Your task to perform on an android device: install app "Indeed Job Search" Image 0: 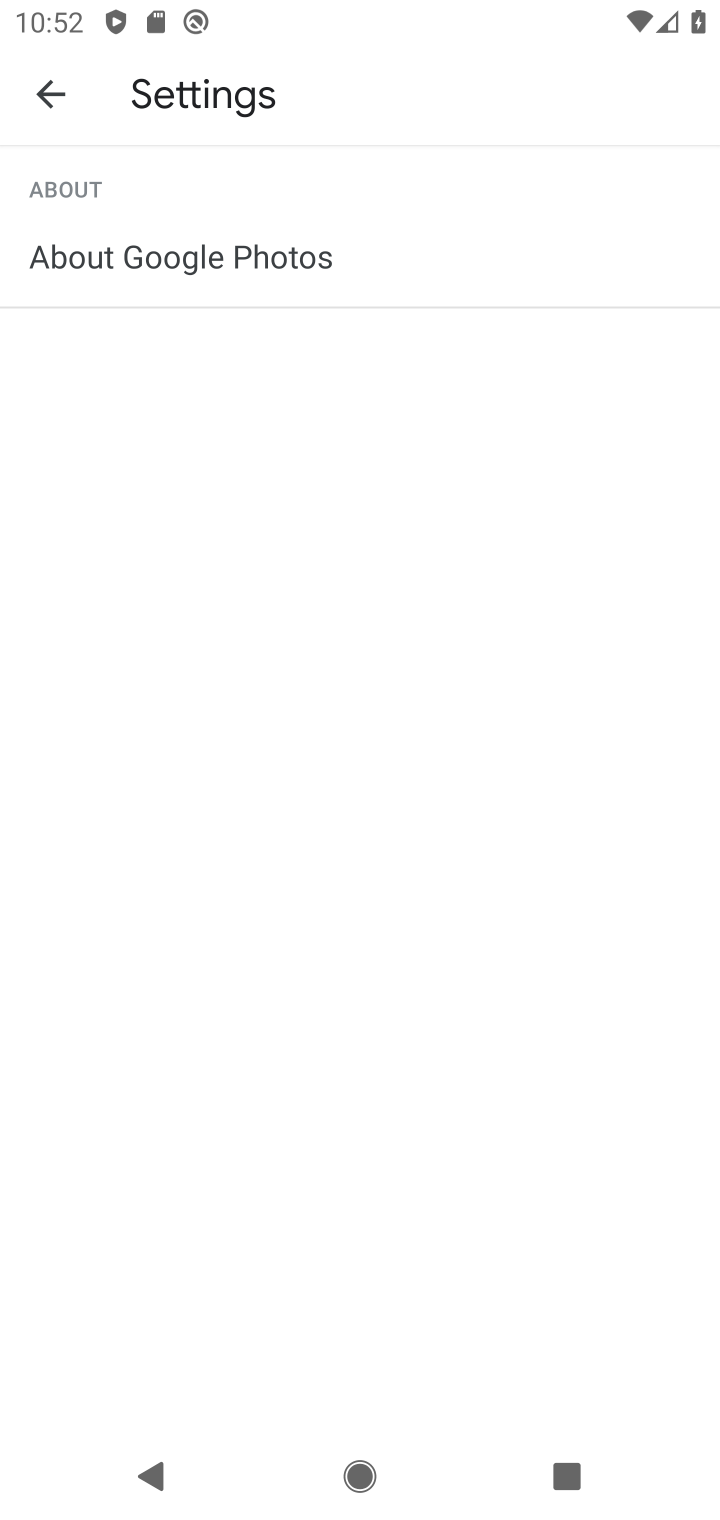
Step 0: press home button
Your task to perform on an android device: install app "Indeed Job Search" Image 1: 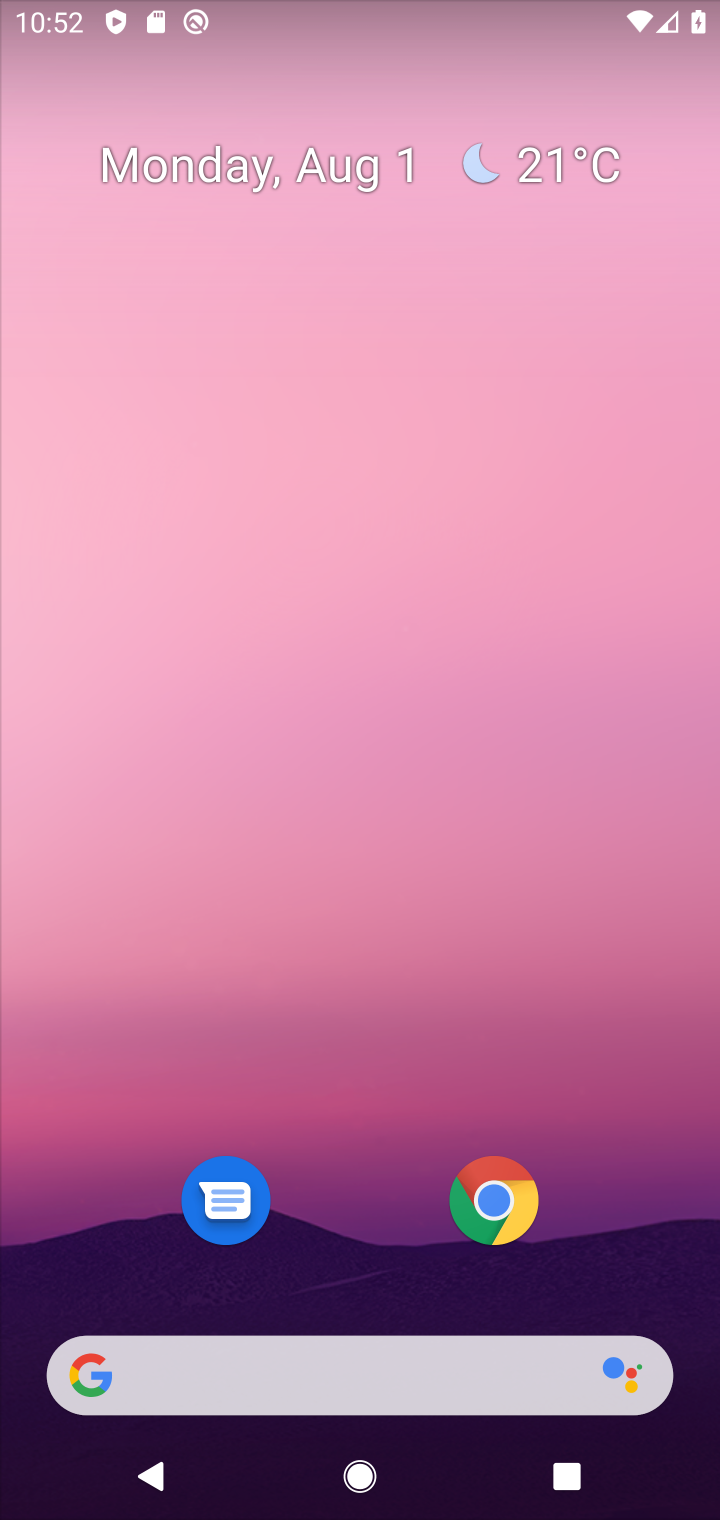
Step 1: drag from (336, 506) to (331, 131)
Your task to perform on an android device: install app "Indeed Job Search" Image 2: 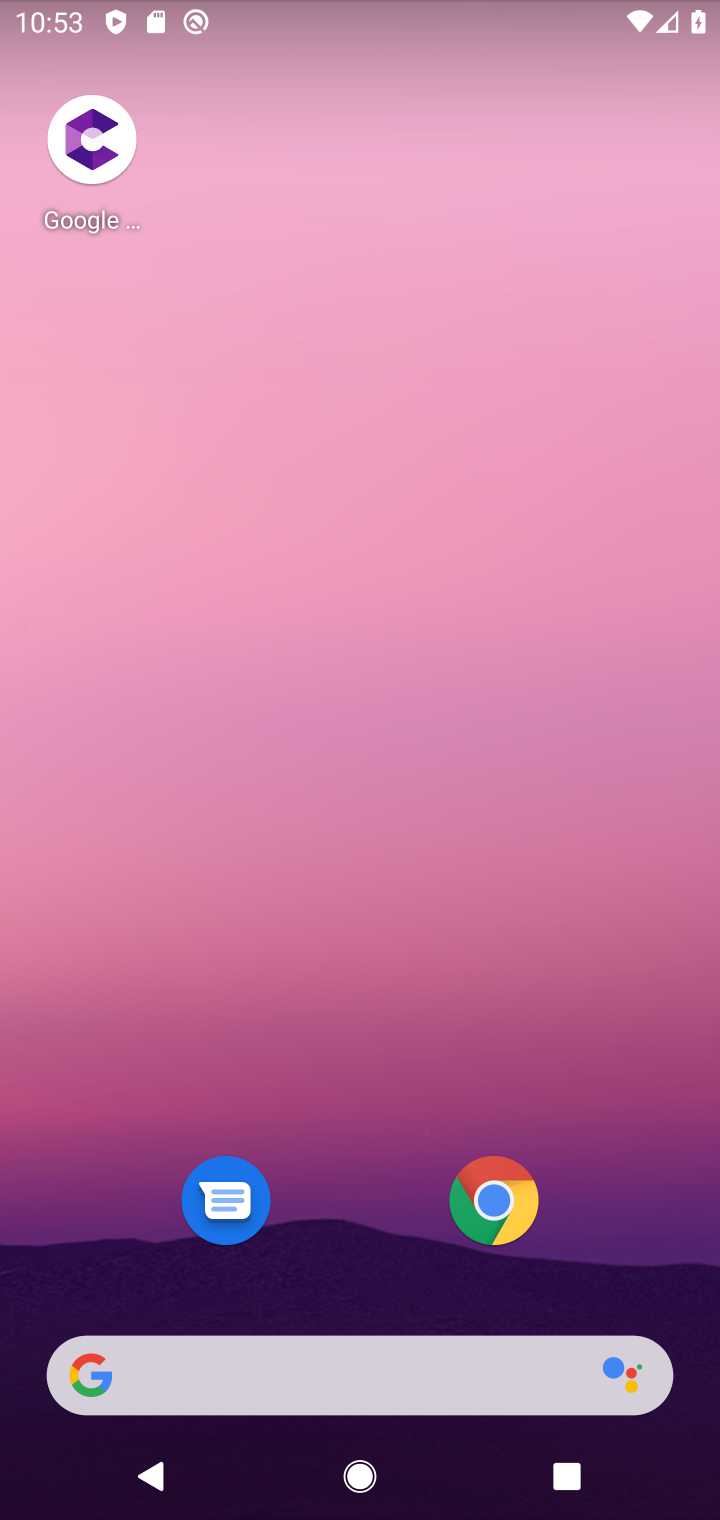
Step 2: drag from (352, 1108) to (342, 148)
Your task to perform on an android device: install app "Indeed Job Search" Image 3: 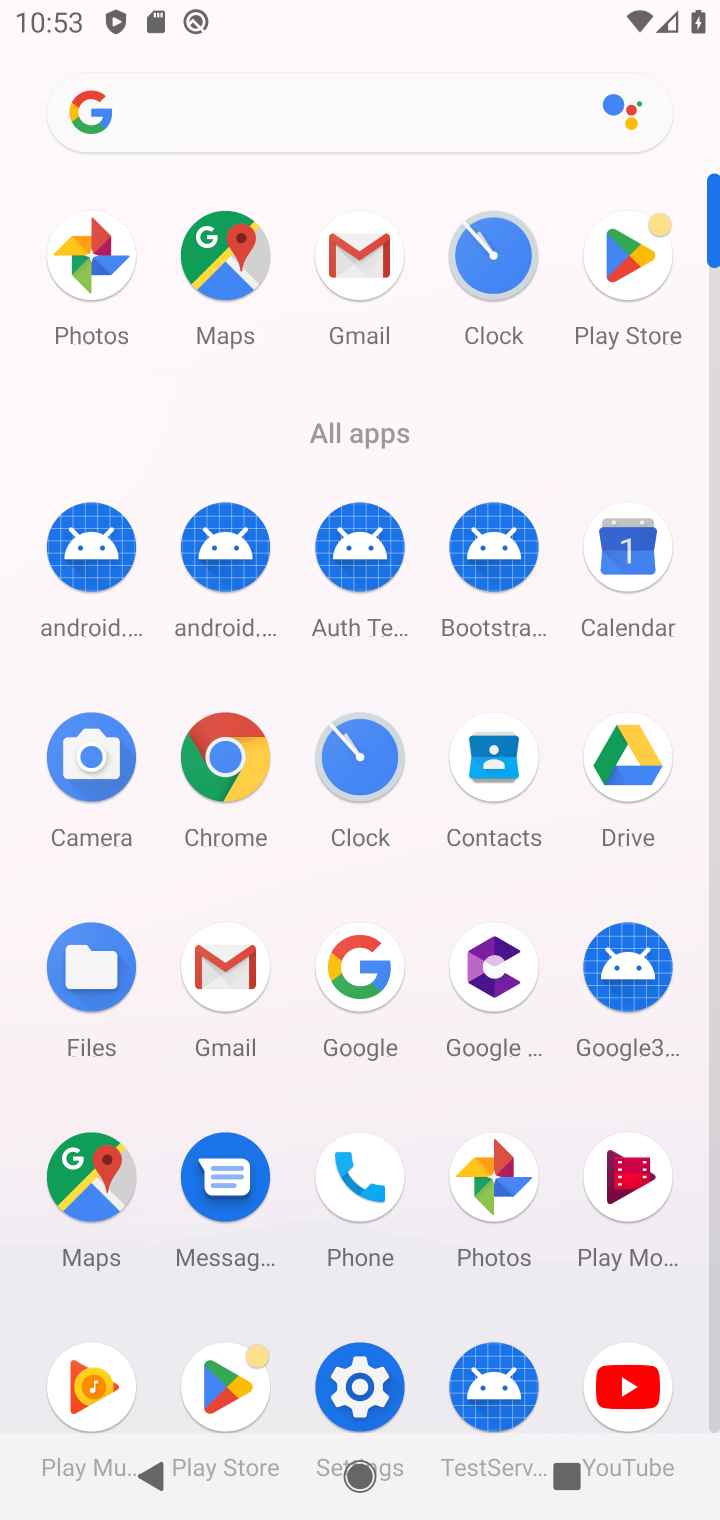
Step 3: click (610, 262)
Your task to perform on an android device: install app "Indeed Job Search" Image 4: 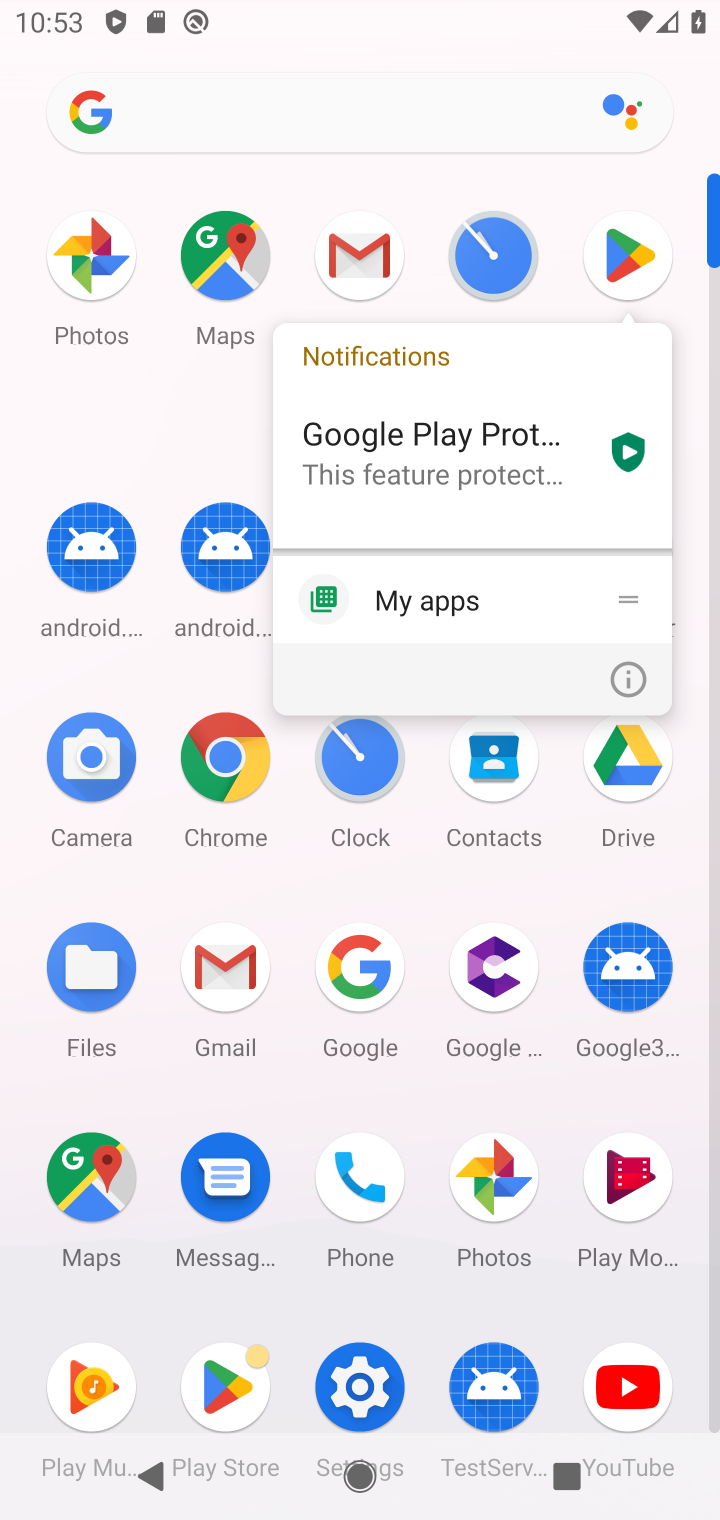
Step 4: click (610, 262)
Your task to perform on an android device: install app "Indeed Job Search" Image 5: 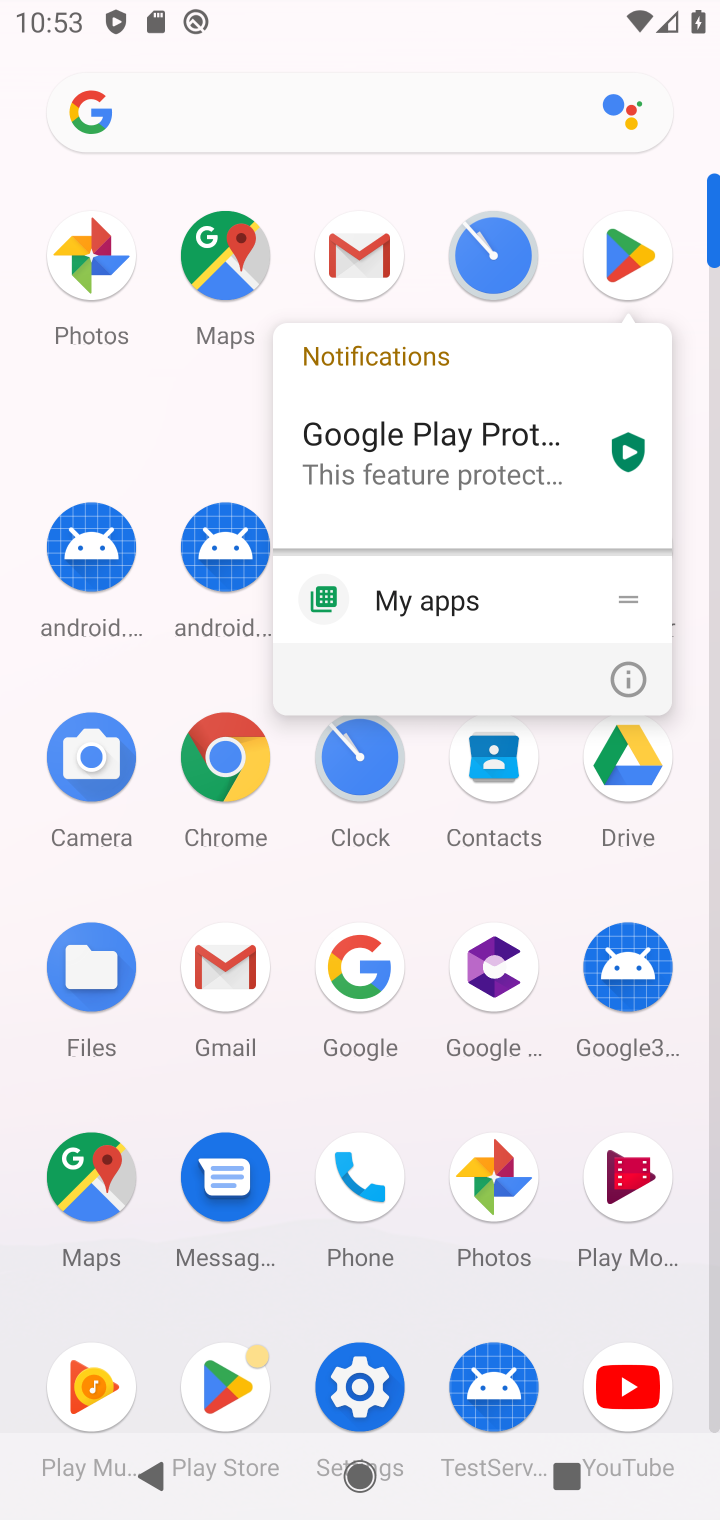
Step 5: click (636, 263)
Your task to perform on an android device: install app "Indeed Job Search" Image 6: 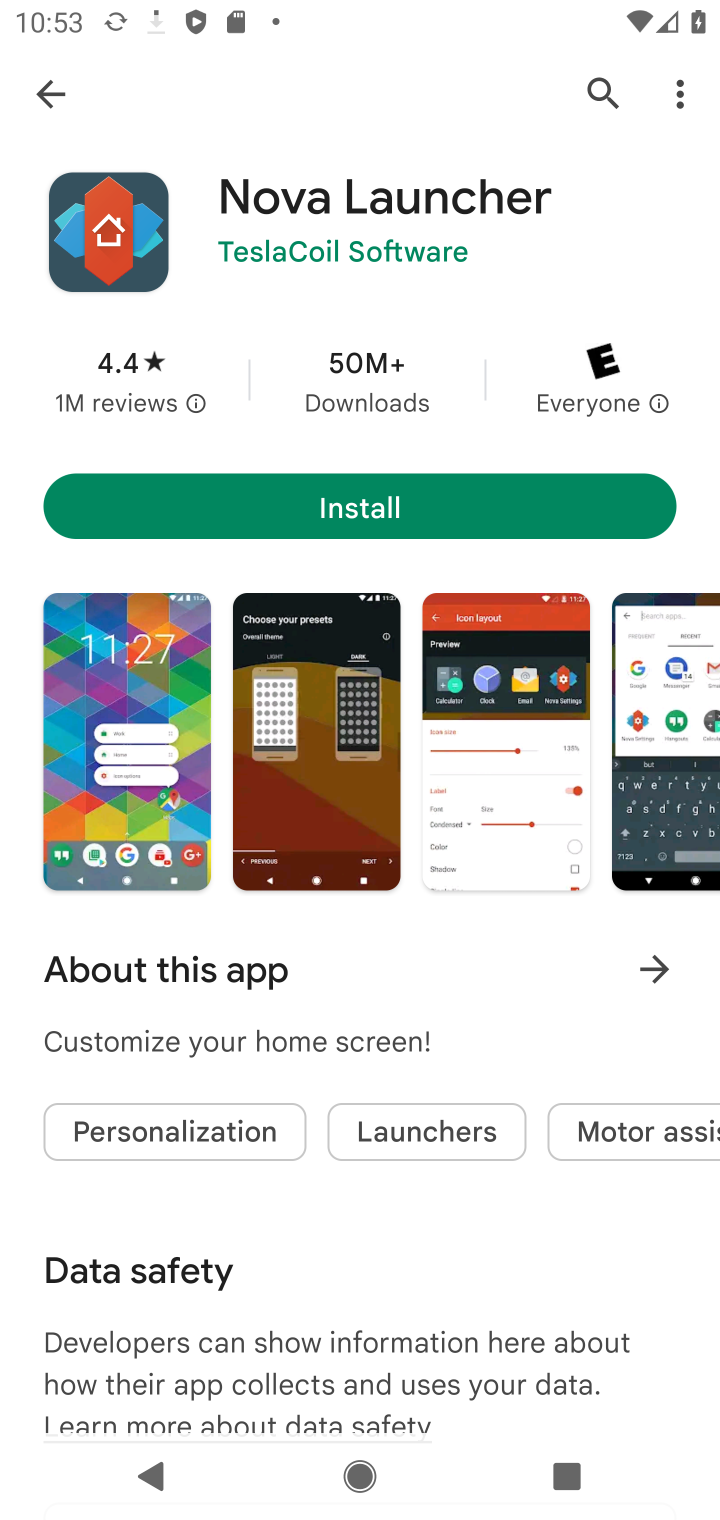
Step 6: click (593, 92)
Your task to perform on an android device: install app "Indeed Job Search" Image 7: 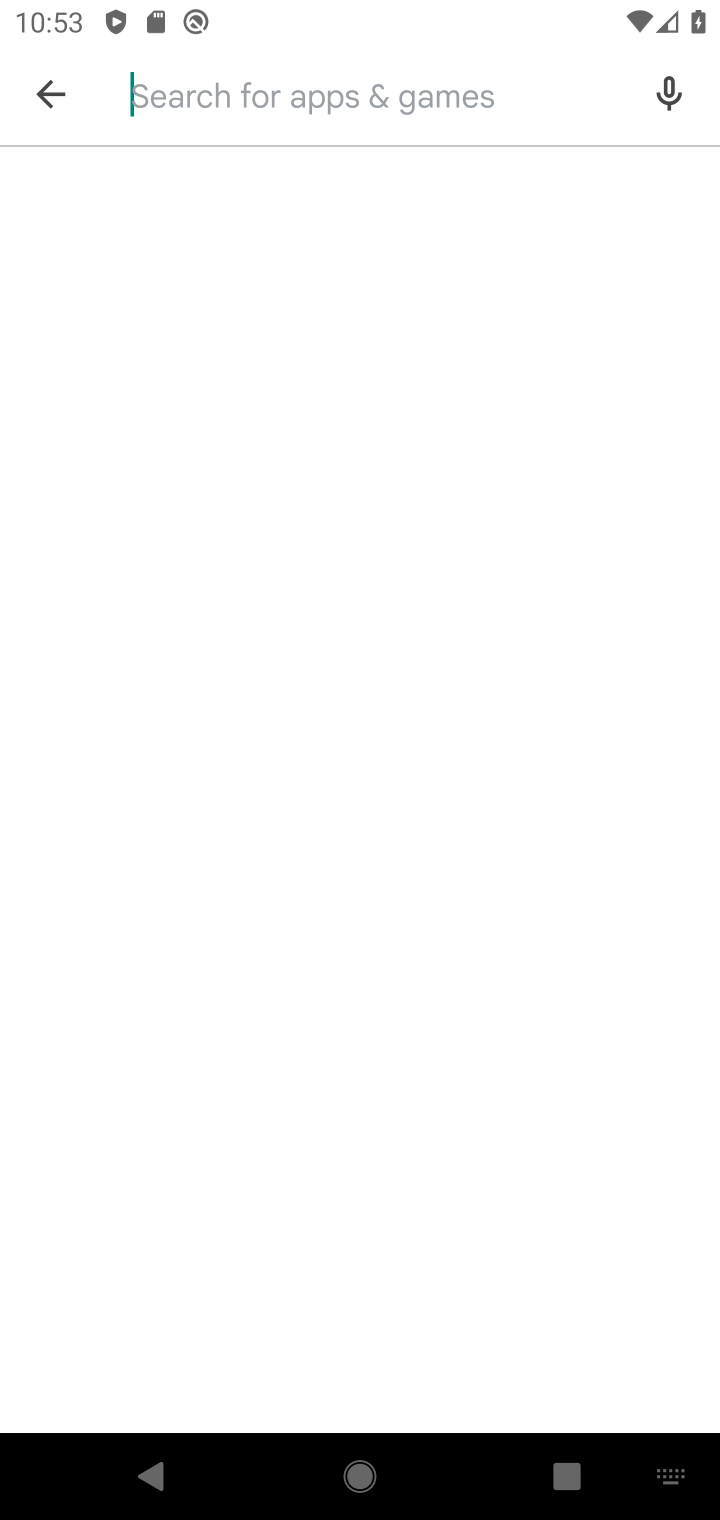
Step 7: type "Indeed Job Search"
Your task to perform on an android device: install app "Indeed Job Search" Image 8: 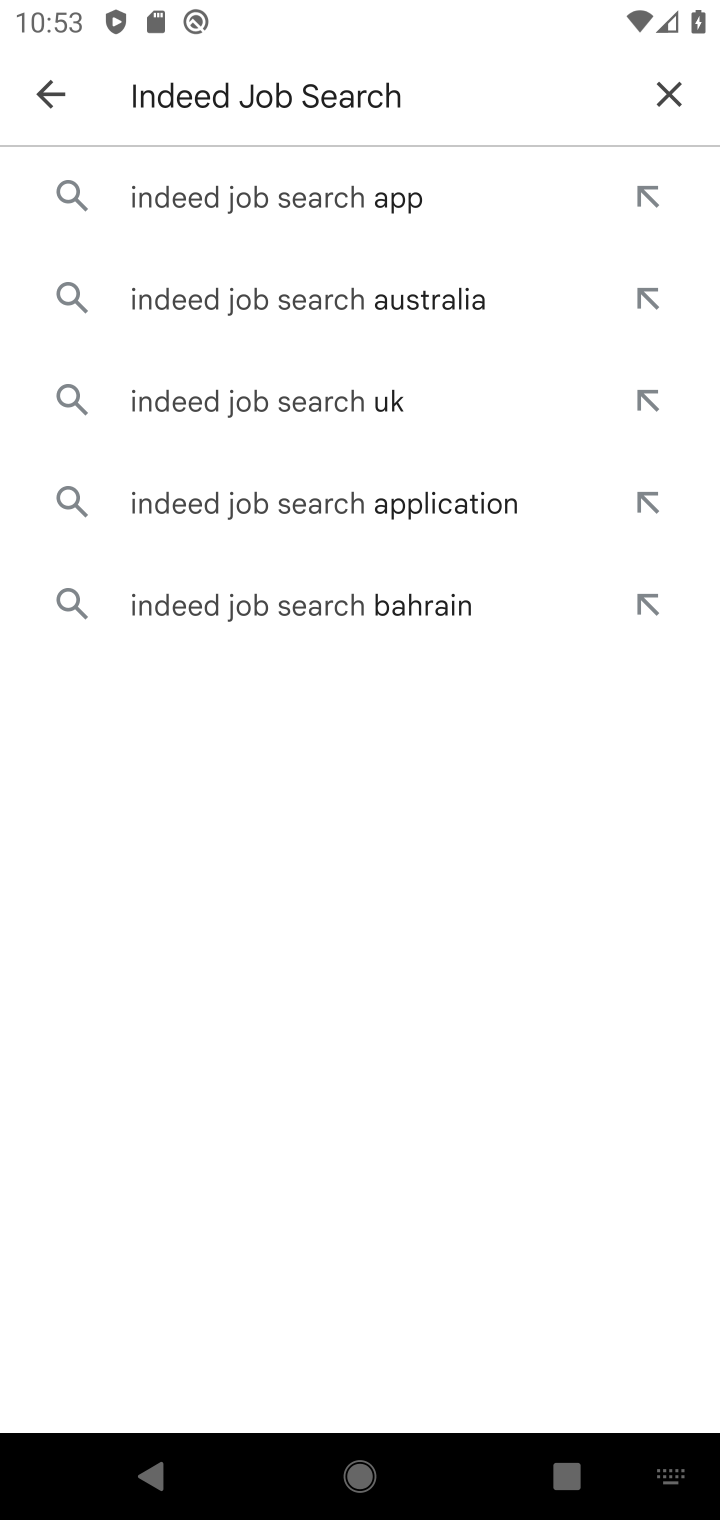
Step 8: click (282, 222)
Your task to perform on an android device: install app "Indeed Job Search" Image 9: 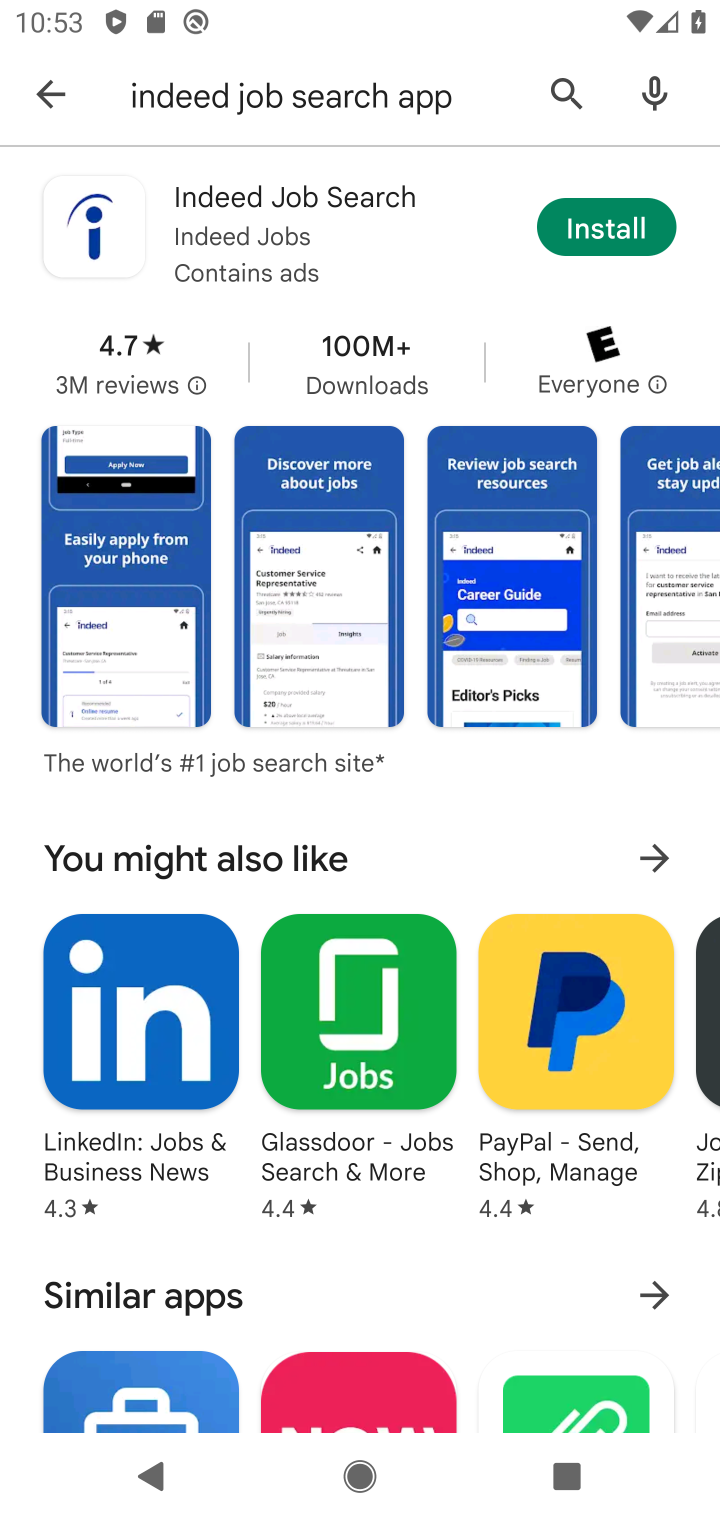
Step 9: click (582, 225)
Your task to perform on an android device: install app "Indeed Job Search" Image 10: 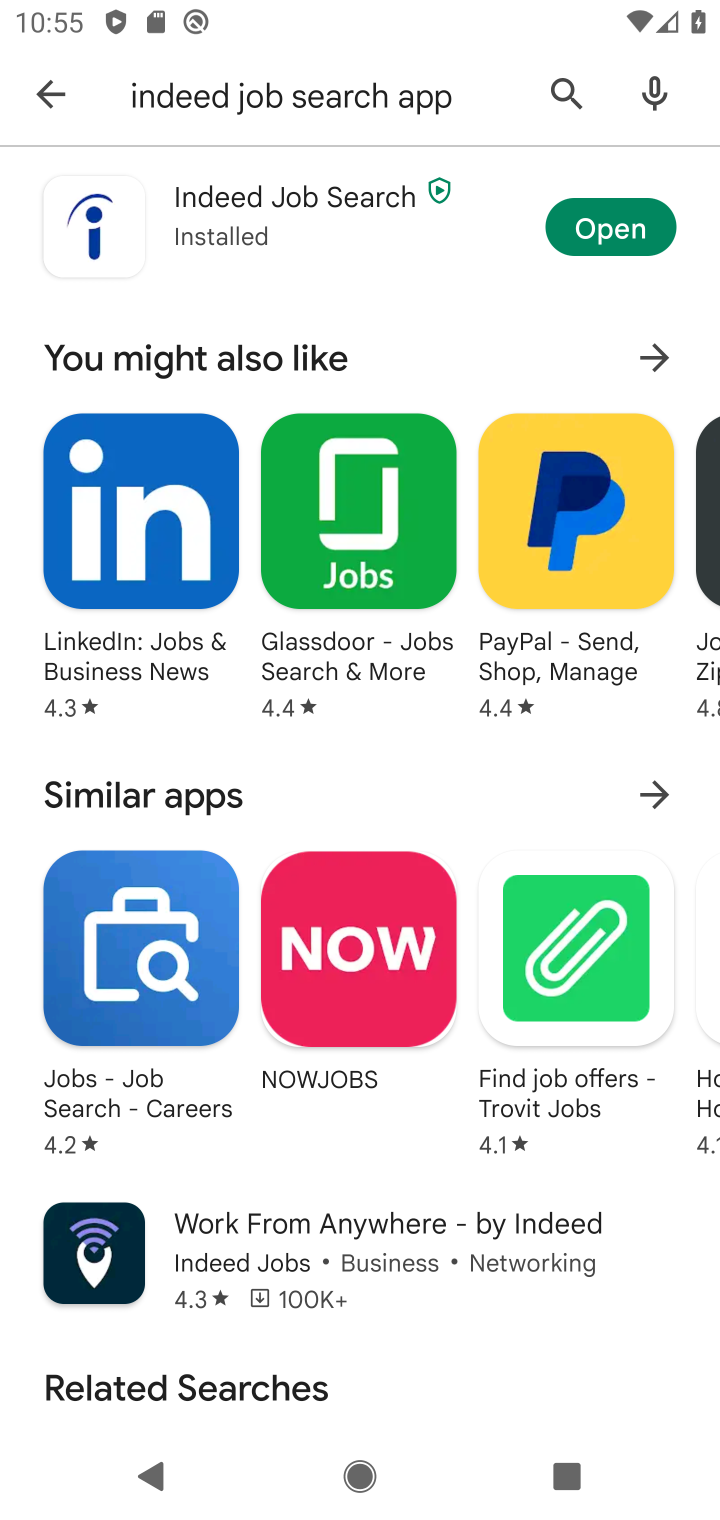
Step 10: task complete